Your task to perform on an android device: turn on notifications settings in the gmail app Image 0: 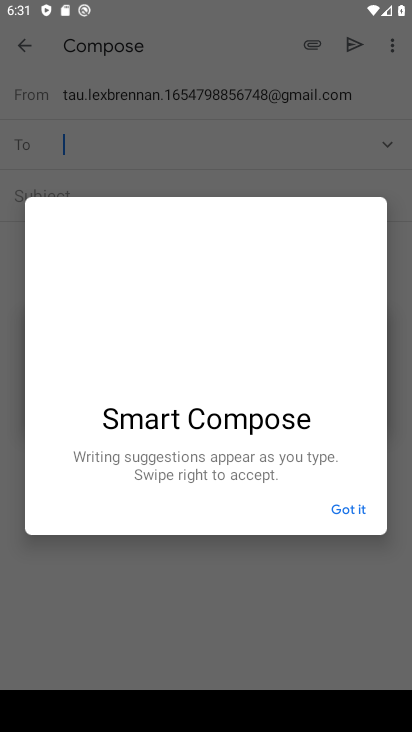
Step 0: click (337, 507)
Your task to perform on an android device: turn on notifications settings in the gmail app Image 1: 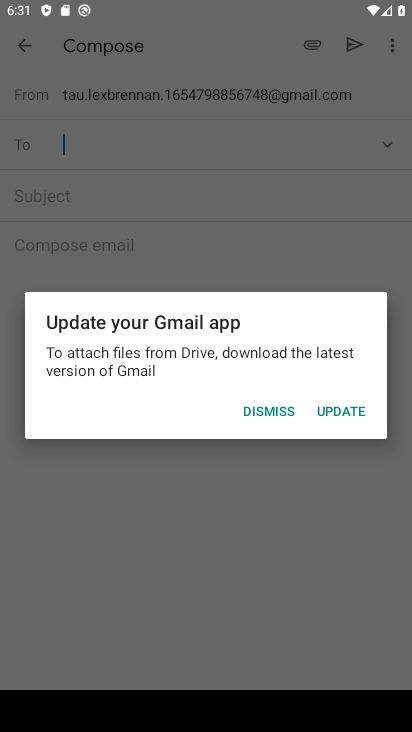
Step 1: press home button
Your task to perform on an android device: turn on notifications settings in the gmail app Image 2: 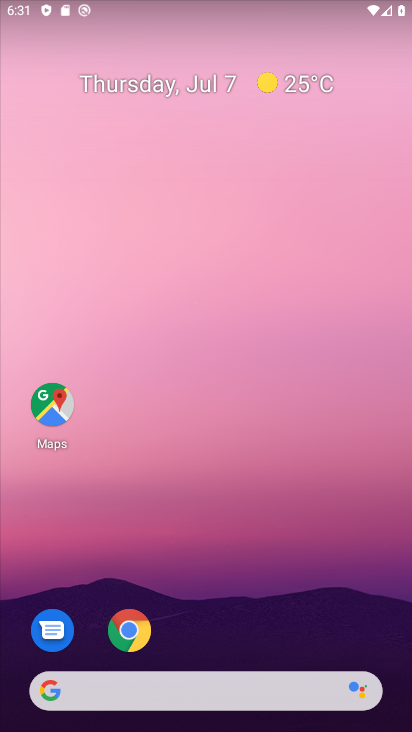
Step 2: drag from (243, 544) to (179, 57)
Your task to perform on an android device: turn on notifications settings in the gmail app Image 3: 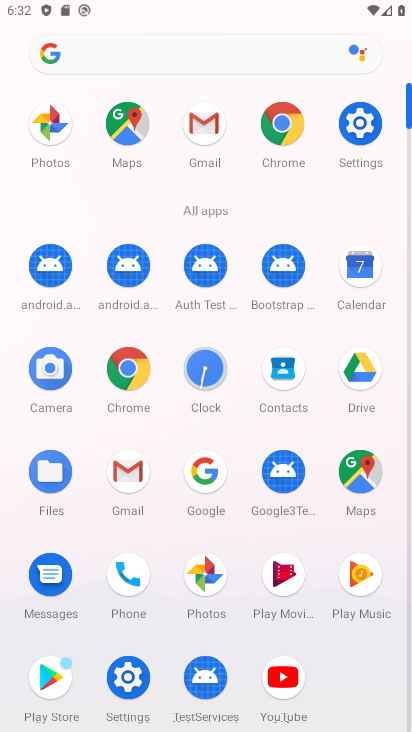
Step 3: click (205, 129)
Your task to perform on an android device: turn on notifications settings in the gmail app Image 4: 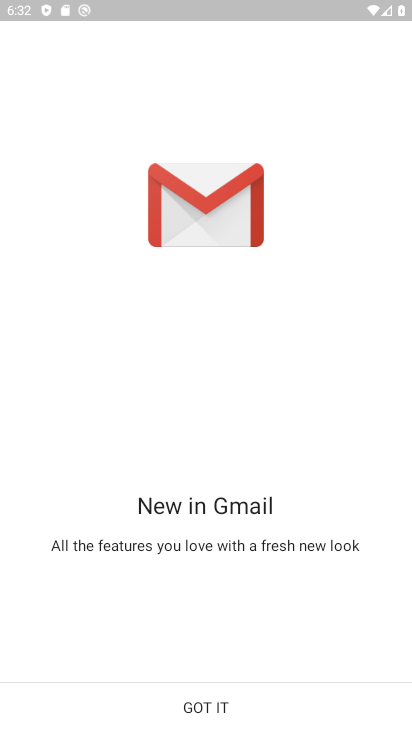
Step 4: click (213, 699)
Your task to perform on an android device: turn on notifications settings in the gmail app Image 5: 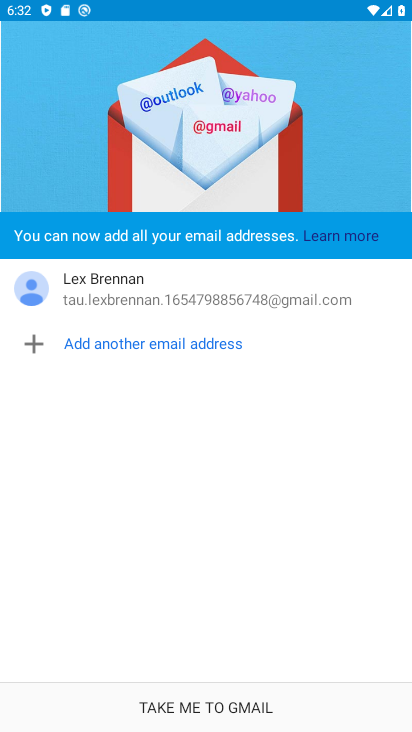
Step 5: click (203, 706)
Your task to perform on an android device: turn on notifications settings in the gmail app Image 6: 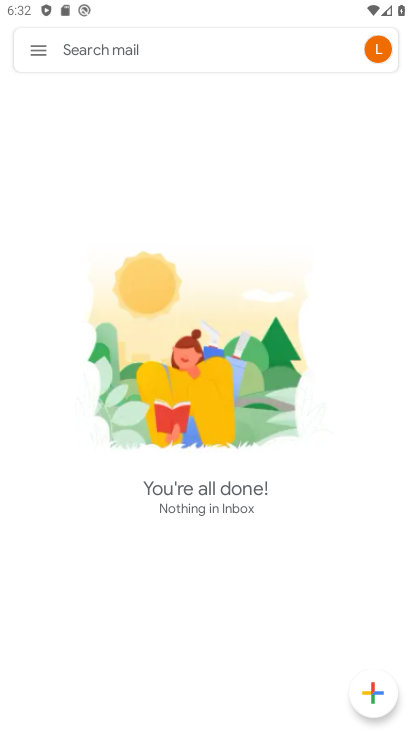
Step 6: click (38, 50)
Your task to perform on an android device: turn on notifications settings in the gmail app Image 7: 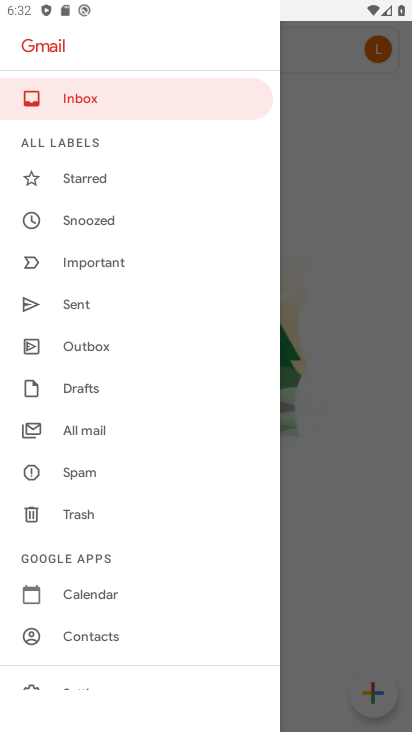
Step 7: drag from (151, 577) to (139, 316)
Your task to perform on an android device: turn on notifications settings in the gmail app Image 8: 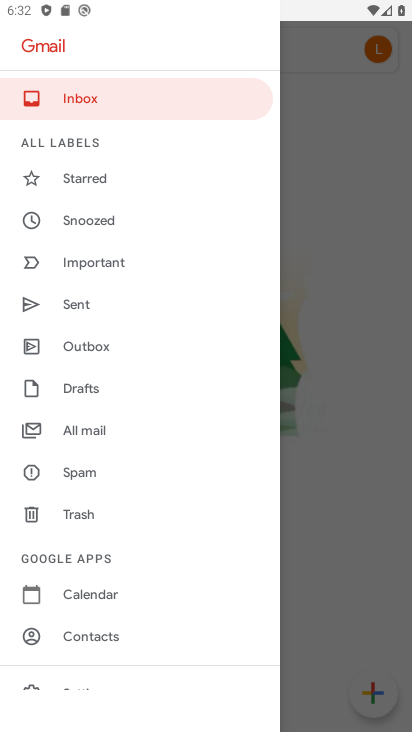
Step 8: drag from (136, 530) to (145, 328)
Your task to perform on an android device: turn on notifications settings in the gmail app Image 9: 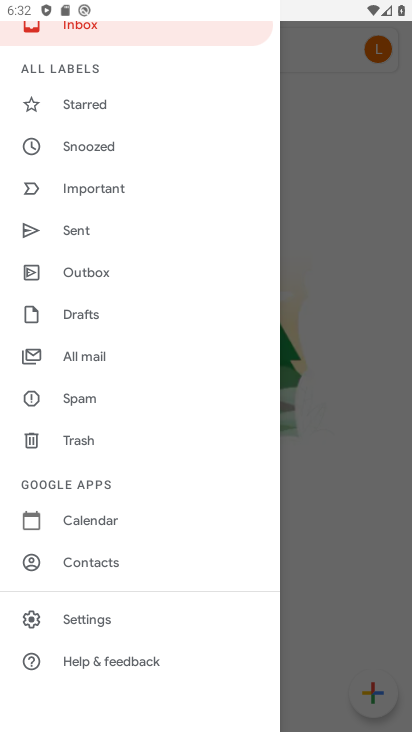
Step 9: click (90, 618)
Your task to perform on an android device: turn on notifications settings in the gmail app Image 10: 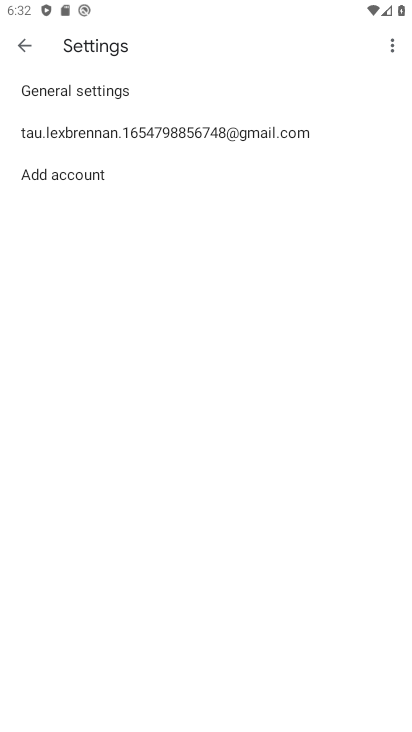
Step 10: click (89, 87)
Your task to perform on an android device: turn on notifications settings in the gmail app Image 11: 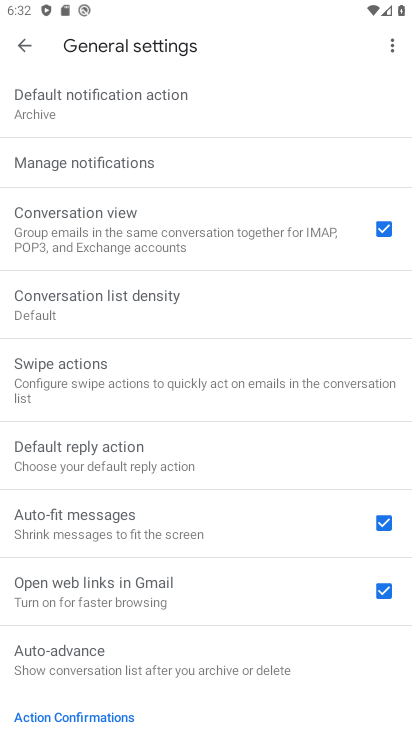
Step 11: click (112, 156)
Your task to perform on an android device: turn on notifications settings in the gmail app Image 12: 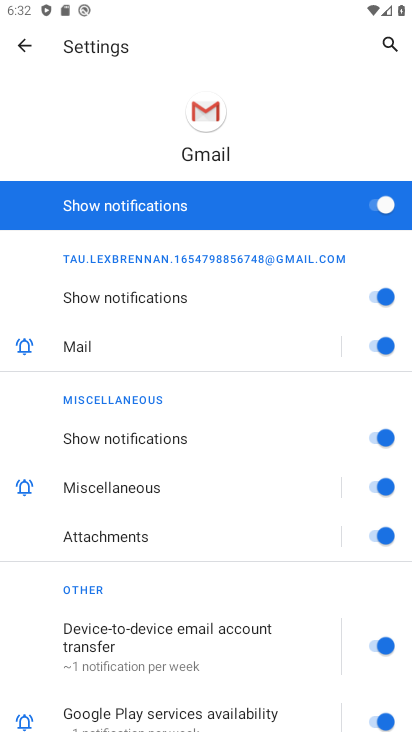
Step 12: task complete